Your task to perform on an android device: allow cookies in the chrome app Image 0: 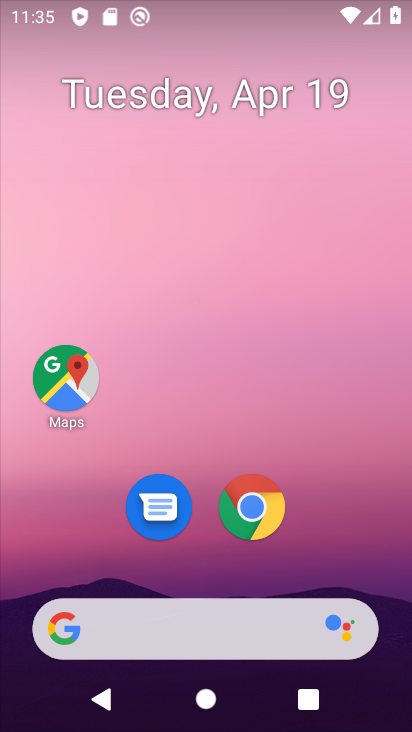
Step 0: drag from (344, 510) to (347, 71)
Your task to perform on an android device: allow cookies in the chrome app Image 1: 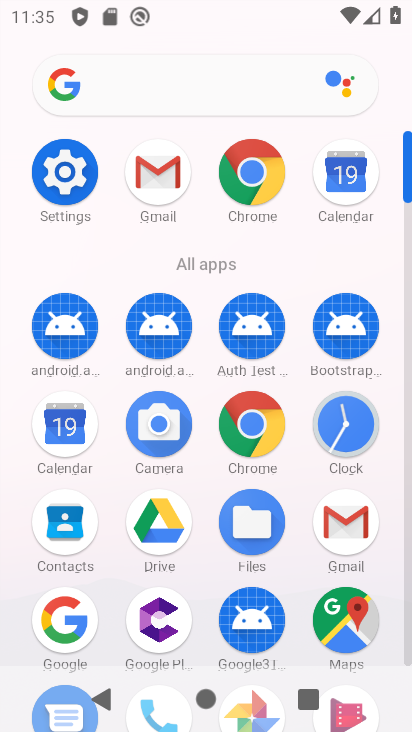
Step 1: click (269, 436)
Your task to perform on an android device: allow cookies in the chrome app Image 2: 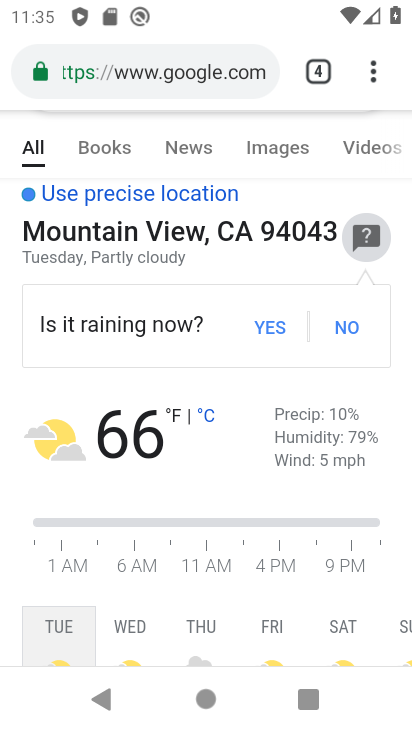
Step 2: click (383, 85)
Your task to perform on an android device: allow cookies in the chrome app Image 3: 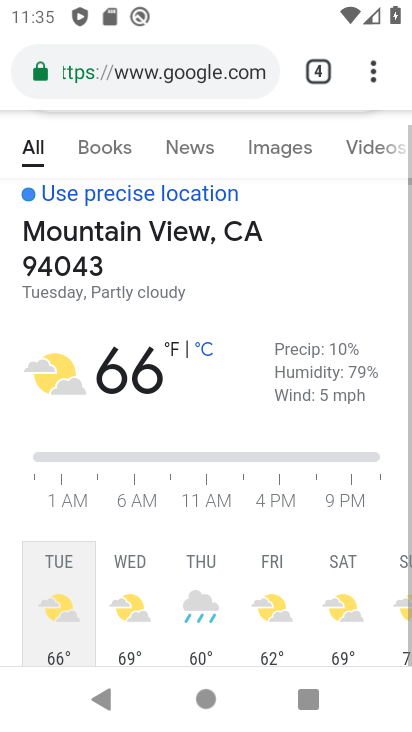
Step 3: drag from (377, 79) to (256, 484)
Your task to perform on an android device: allow cookies in the chrome app Image 4: 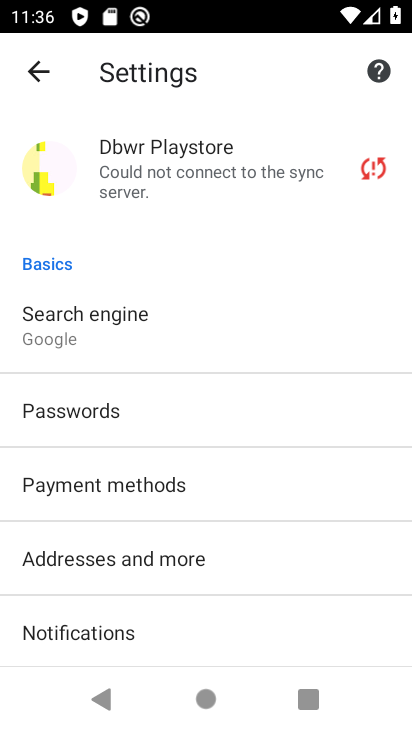
Step 4: drag from (292, 598) to (304, 324)
Your task to perform on an android device: allow cookies in the chrome app Image 5: 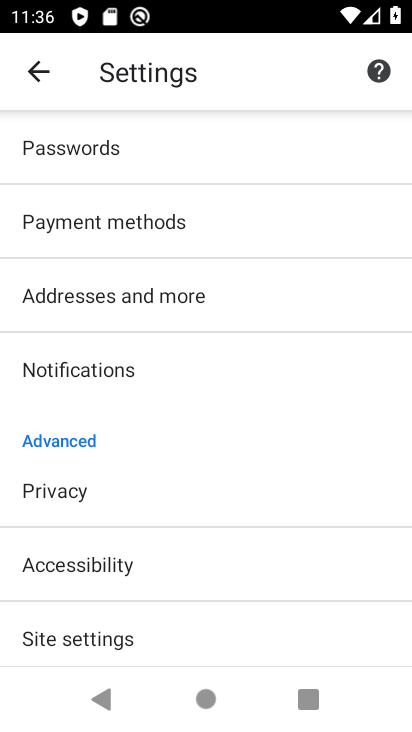
Step 5: drag from (244, 564) to (283, 283)
Your task to perform on an android device: allow cookies in the chrome app Image 6: 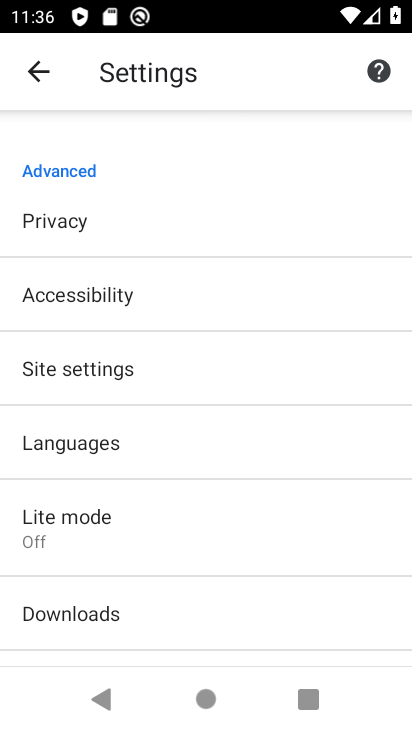
Step 6: drag from (218, 252) to (218, 572)
Your task to perform on an android device: allow cookies in the chrome app Image 7: 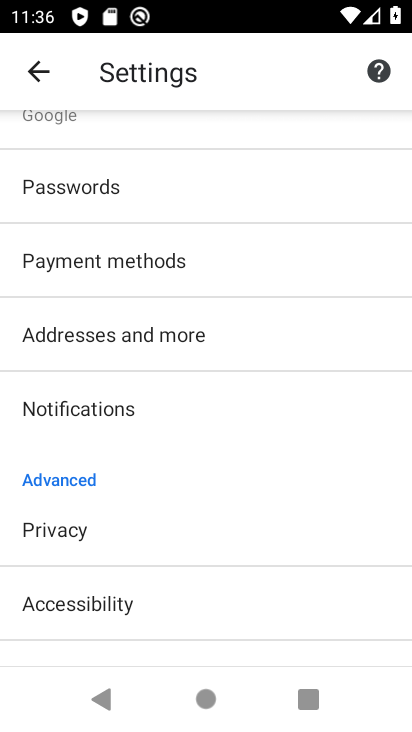
Step 7: drag from (186, 196) to (230, 615)
Your task to perform on an android device: allow cookies in the chrome app Image 8: 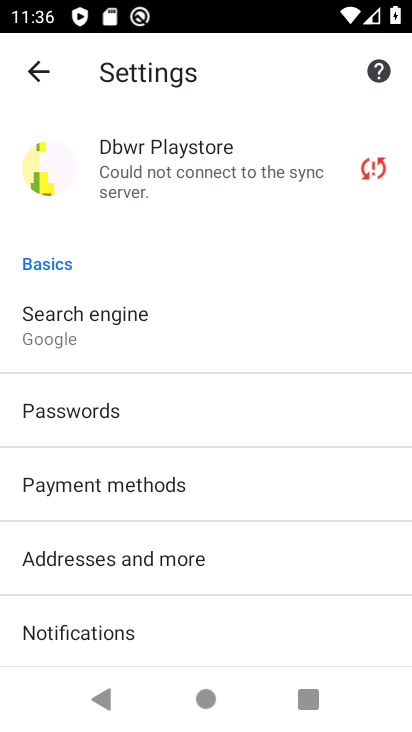
Step 8: drag from (257, 663) to (284, 397)
Your task to perform on an android device: allow cookies in the chrome app Image 9: 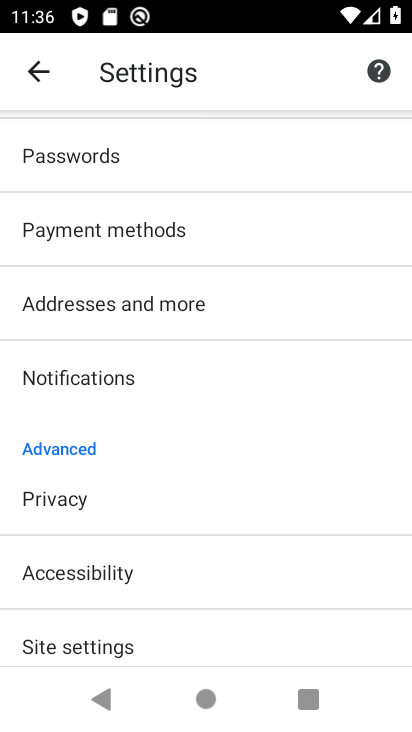
Step 9: drag from (261, 642) to (312, 277)
Your task to perform on an android device: allow cookies in the chrome app Image 10: 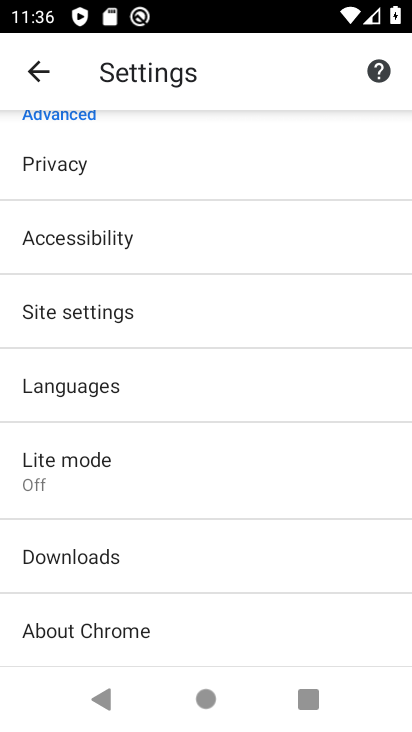
Step 10: drag from (244, 237) to (263, 563)
Your task to perform on an android device: allow cookies in the chrome app Image 11: 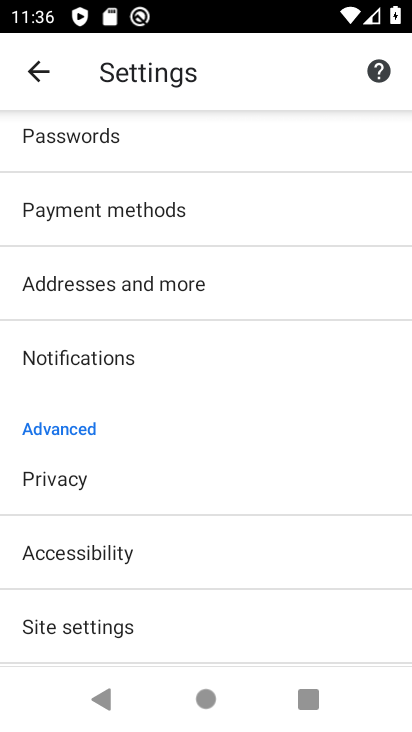
Step 11: drag from (219, 241) to (223, 512)
Your task to perform on an android device: allow cookies in the chrome app Image 12: 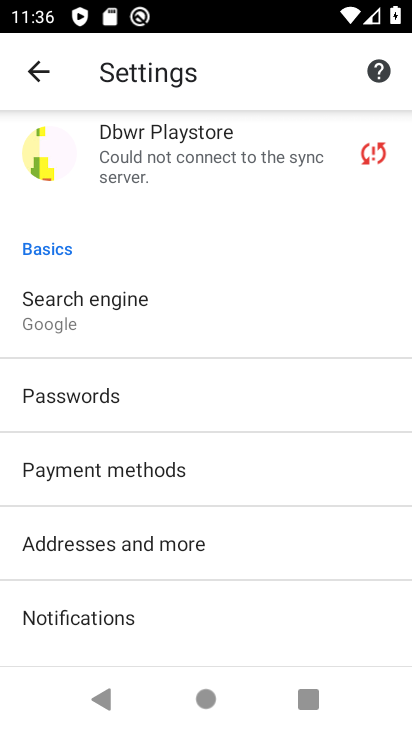
Step 12: drag from (198, 613) to (232, 279)
Your task to perform on an android device: allow cookies in the chrome app Image 13: 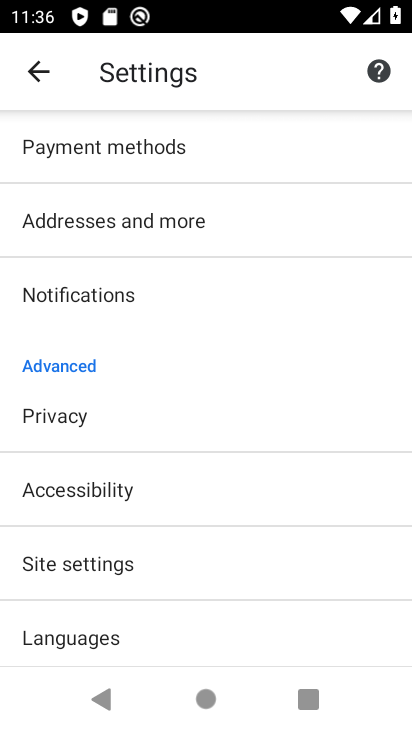
Step 13: click (110, 555)
Your task to perform on an android device: allow cookies in the chrome app Image 14: 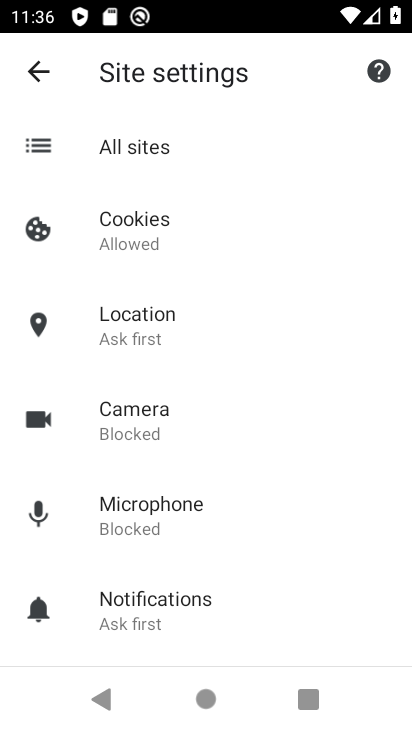
Step 14: click (184, 229)
Your task to perform on an android device: allow cookies in the chrome app Image 15: 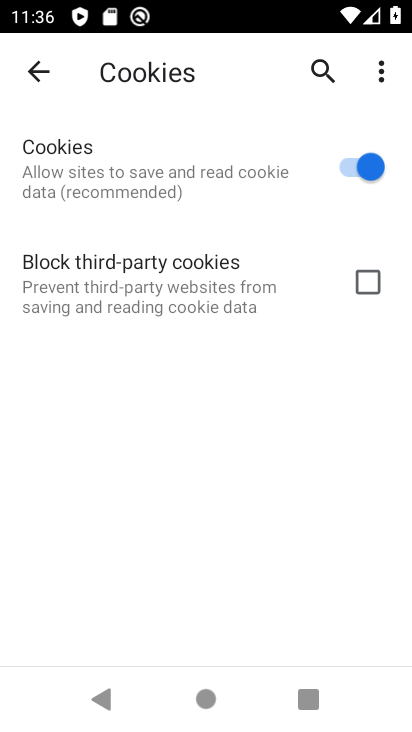
Step 15: task complete